Your task to perform on an android device: Open eBay Image 0: 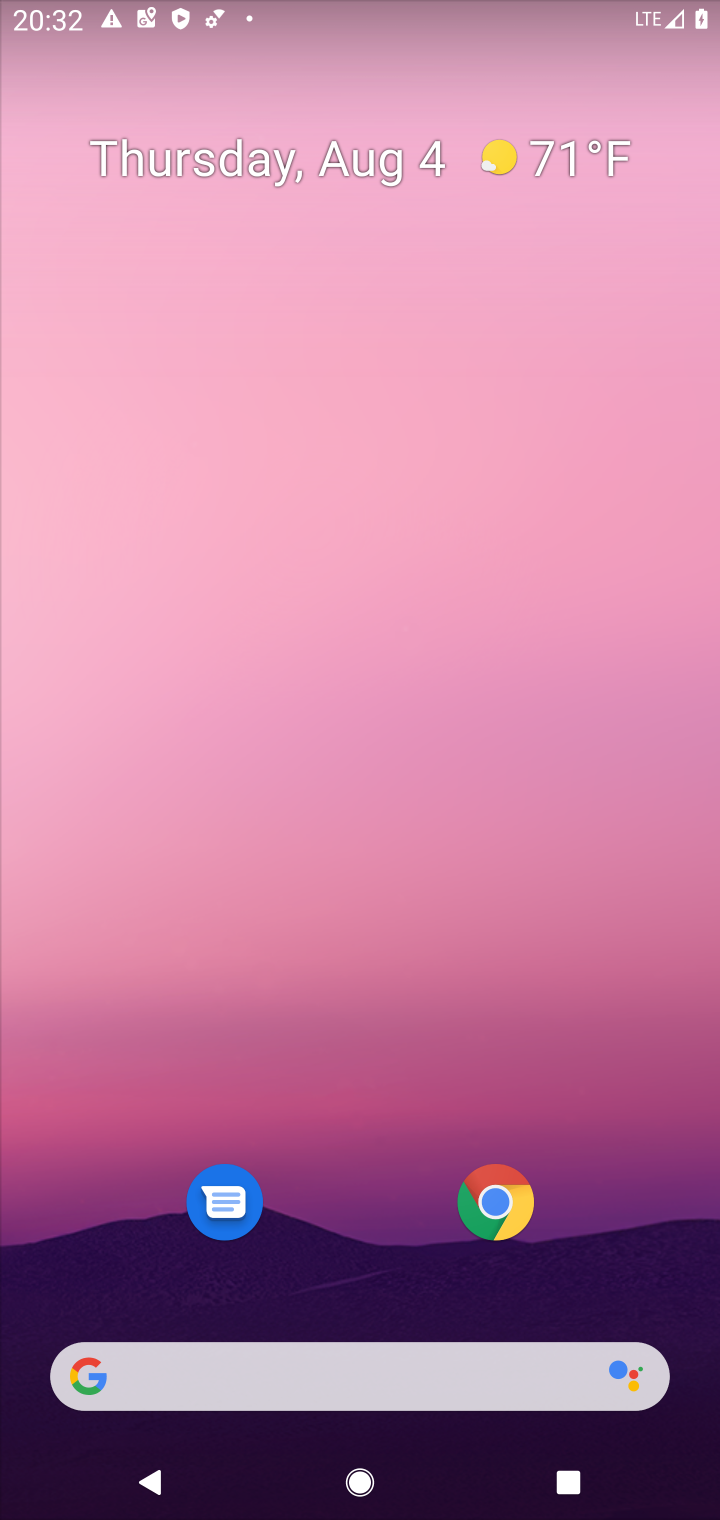
Step 0: click (537, 1199)
Your task to perform on an android device: Open eBay Image 1: 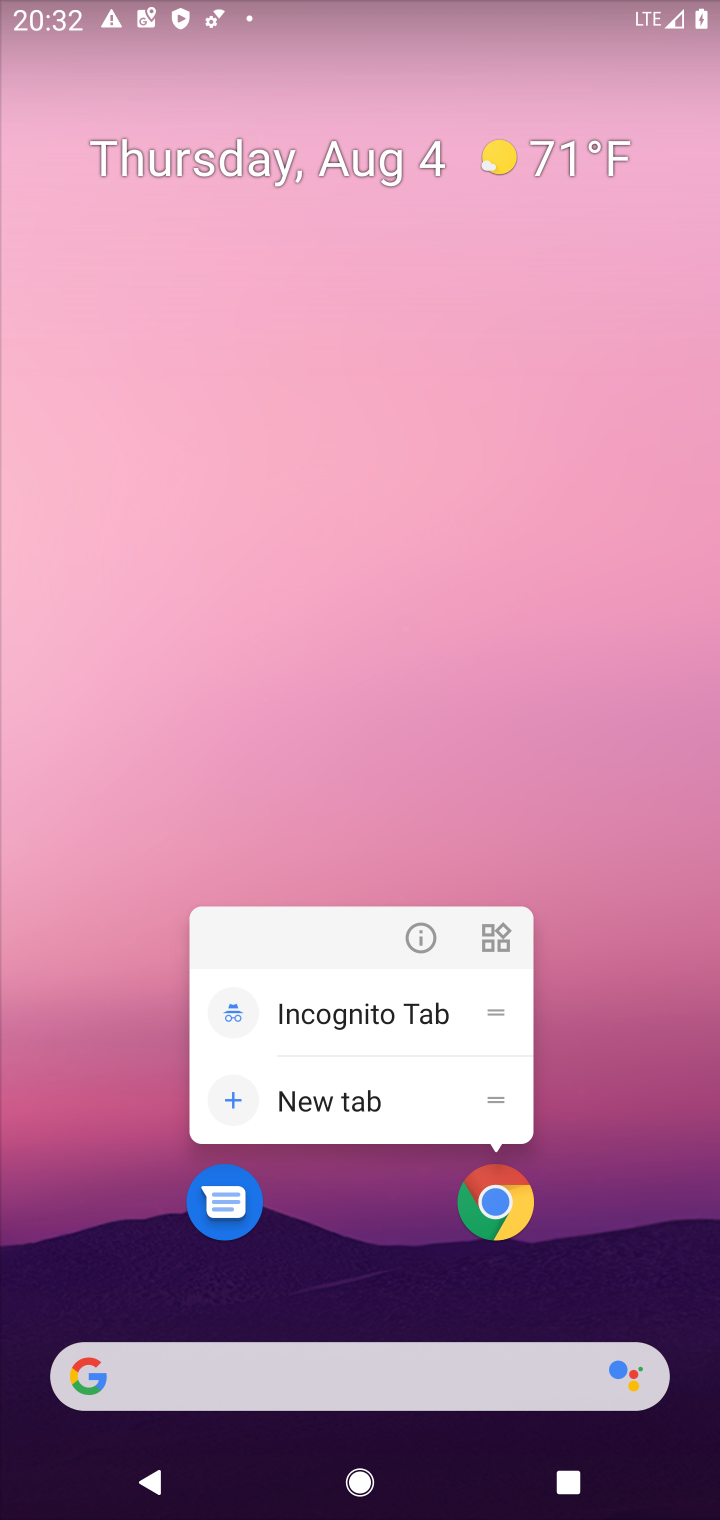
Step 1: click (494, 1227)
Your task to perform on an android device: Open eBay Image 2: 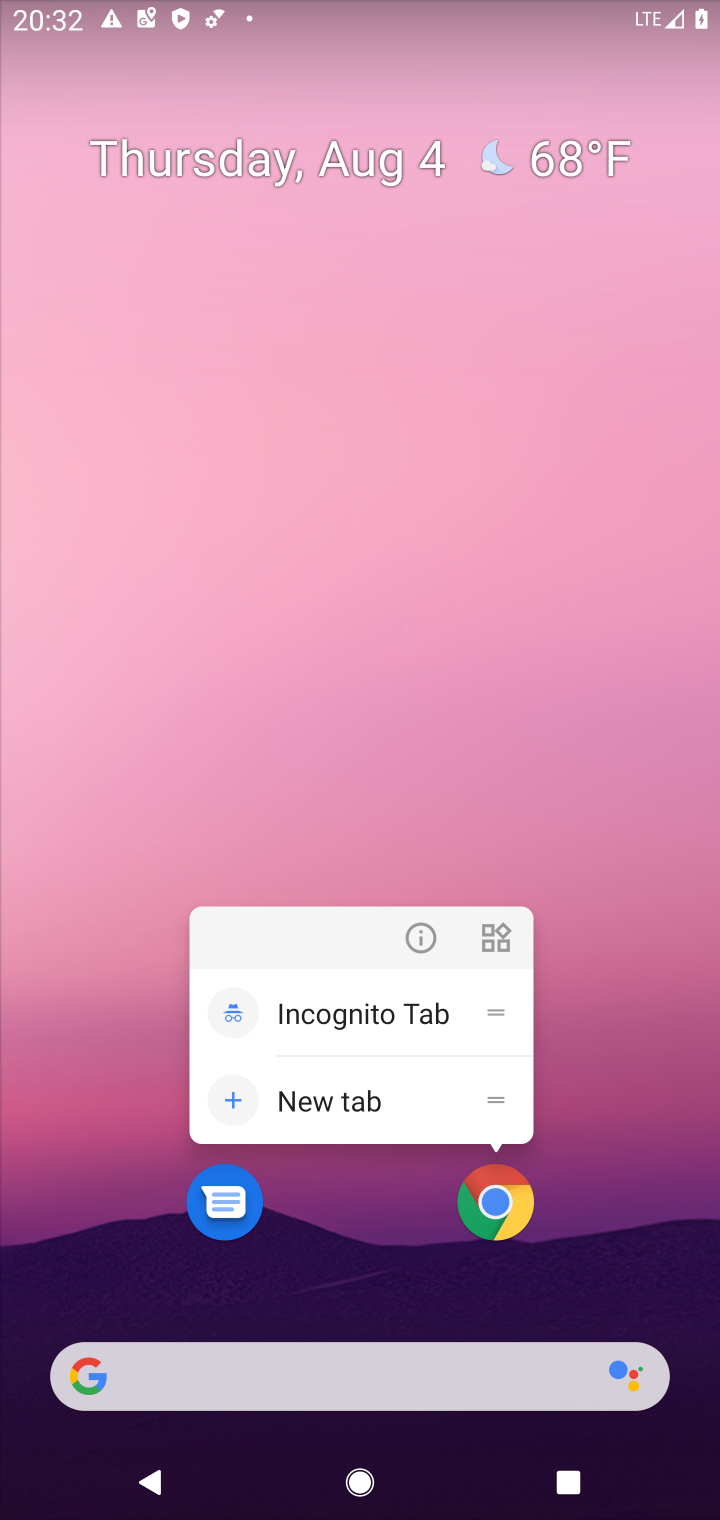
Step 2: click (494, 1227)
Your task to perform on an android device: Open eBay Image 3: 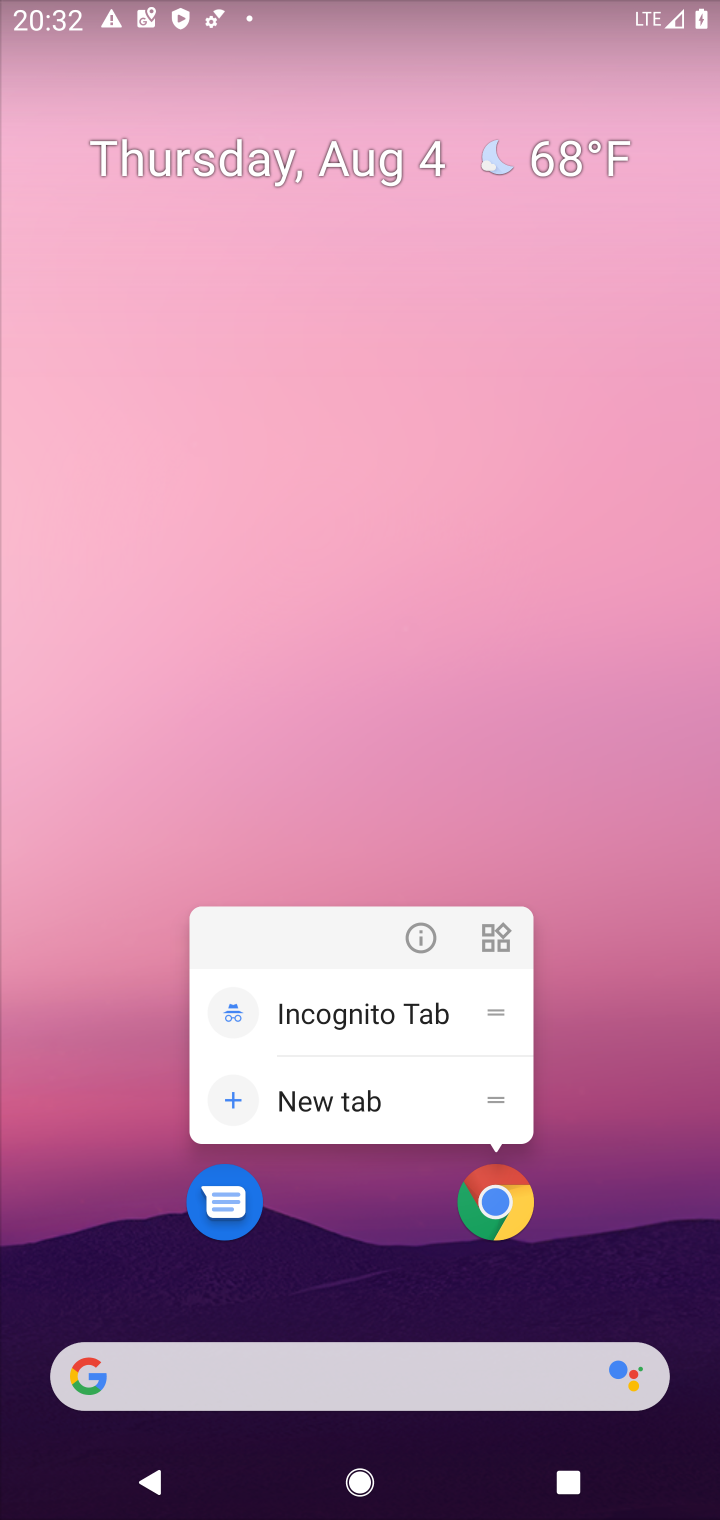
Step 3: click (497, 1221)
Your task to perform on an android device: Open eBay Image 4: 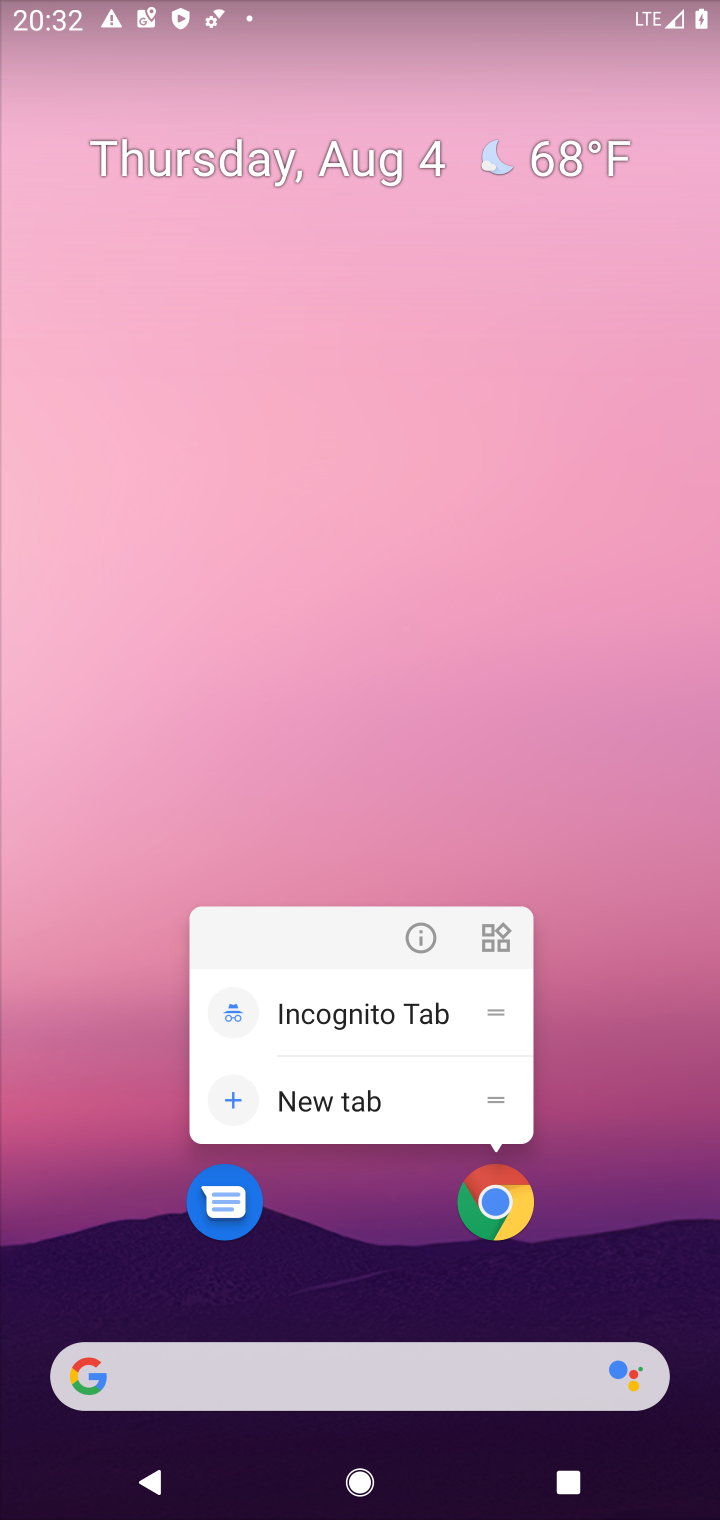
Step 4: click (497, 1221)
Your task to perform on an android device: Open eBay Image 5: 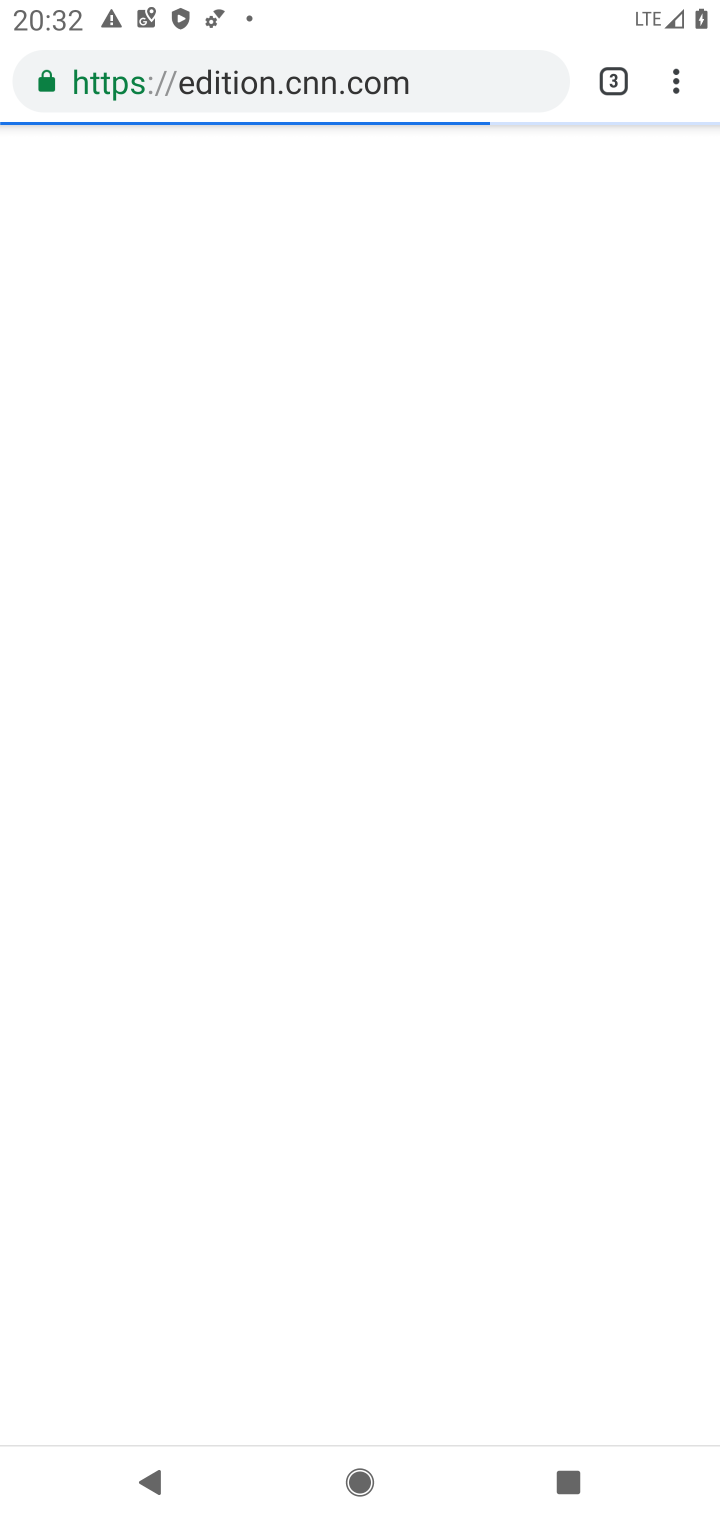
Step 5: click (616, 79)
Your task to perform on an android device: Open eBay Image 6: 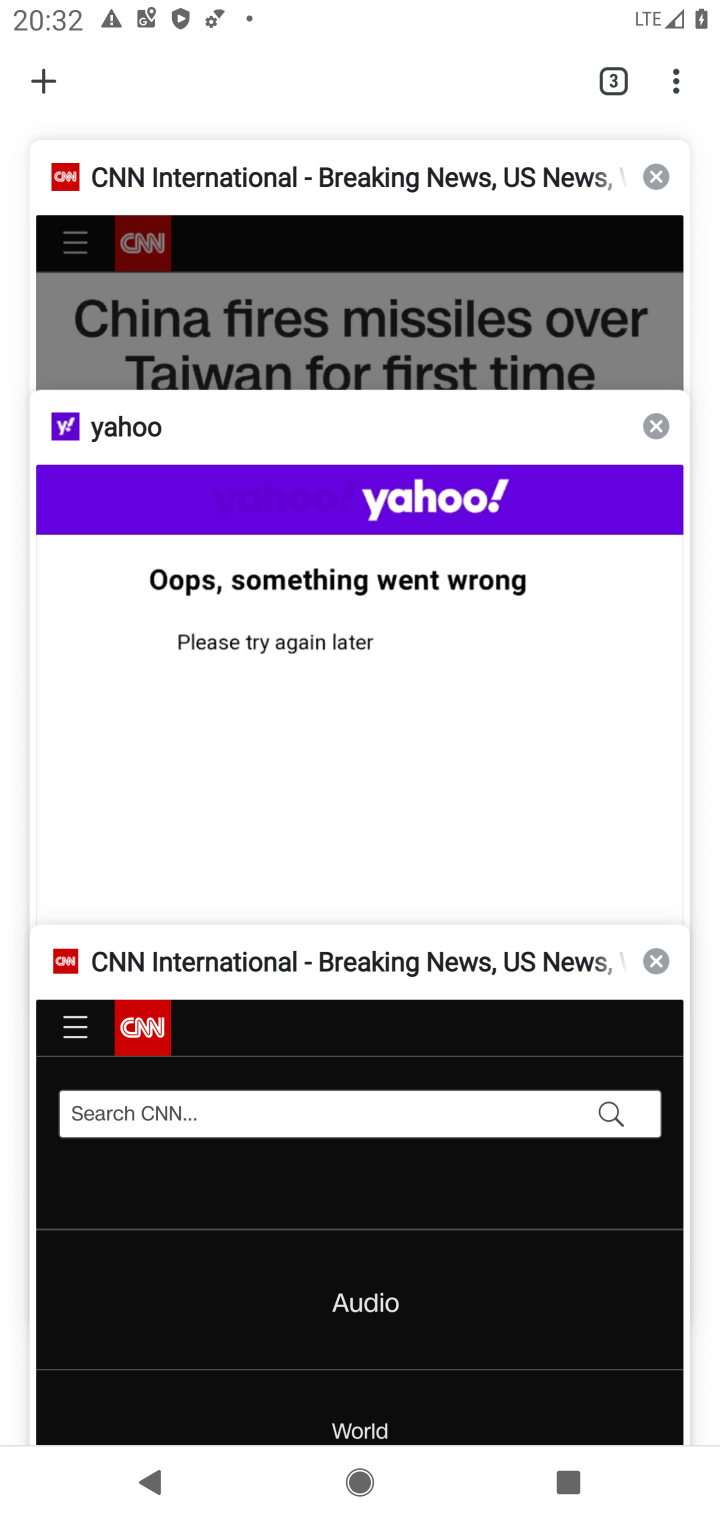
Step 6: click (47, 69)
Your task to perform on an android device: Open eBay Image 7: 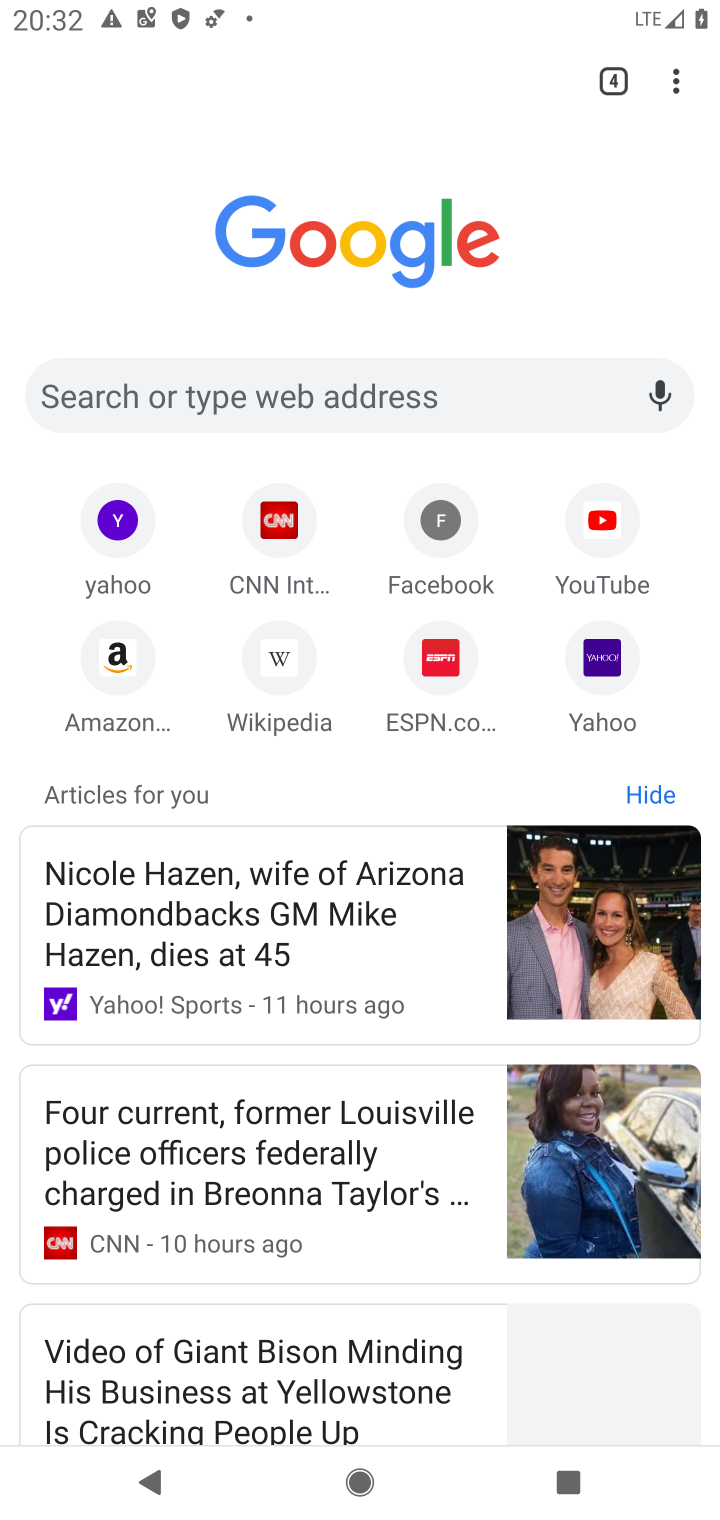
Step 7: click (202, 413)
Your task to perform on an android device: Open eBay Image 8: 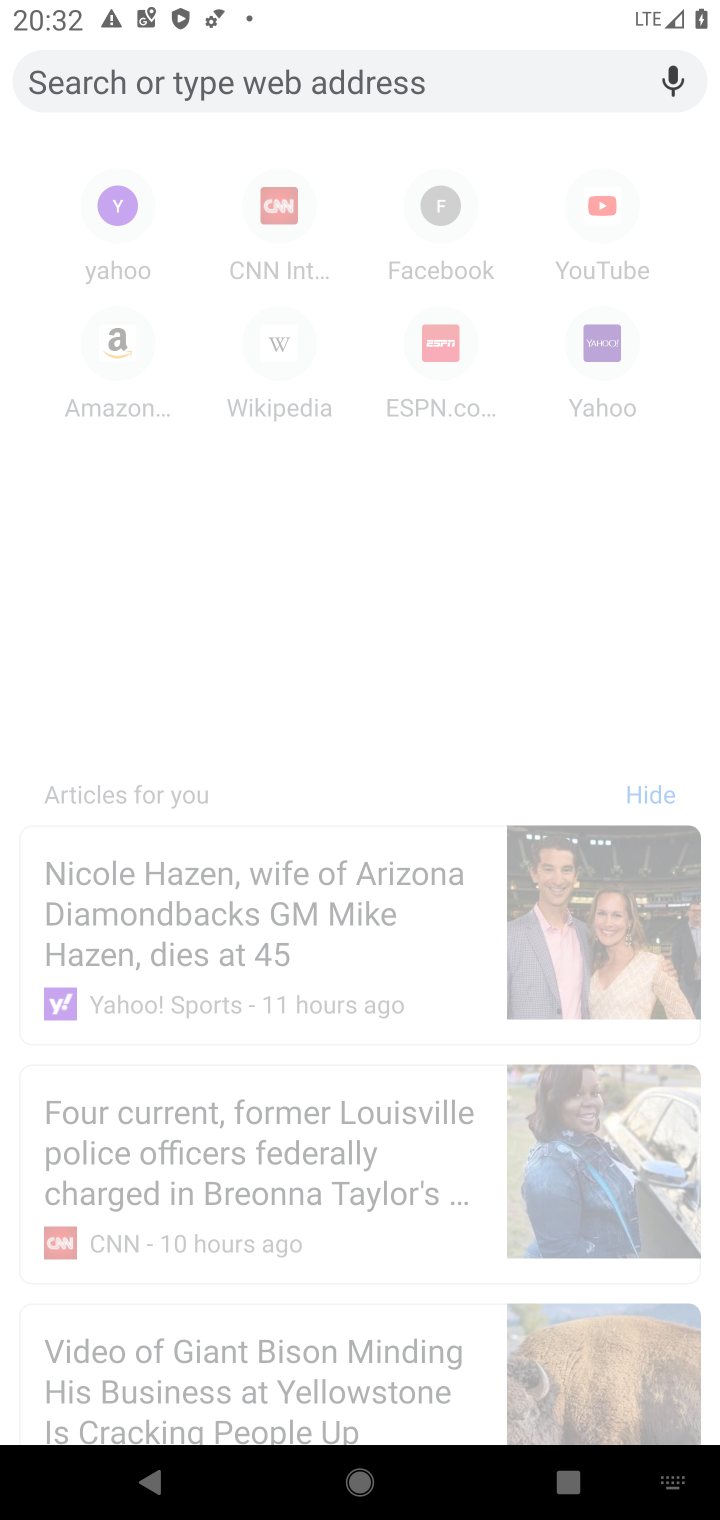
Step 8: type "eBay"
Your task to perform on an android device: Open eBay Image 9: 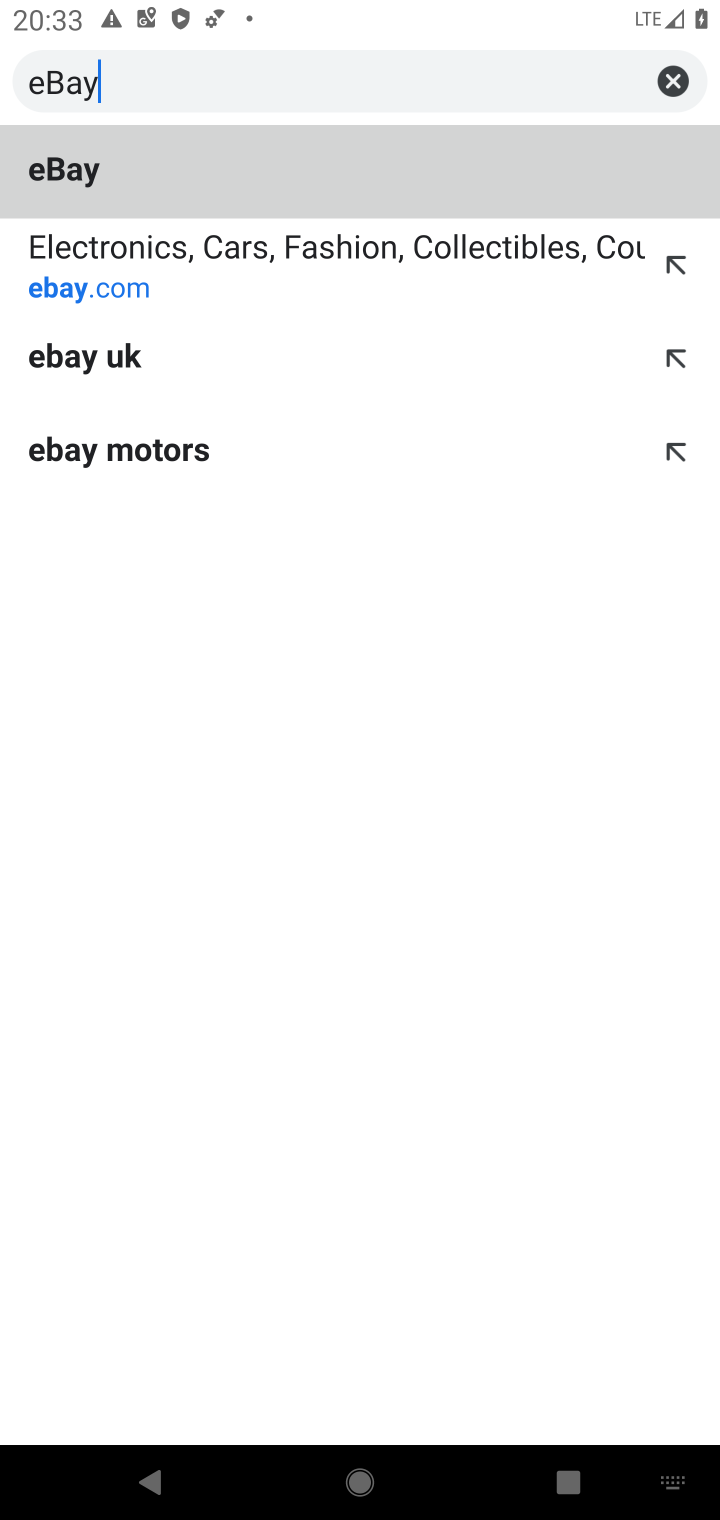
Step 9: click (256, 185)
Your task to perform on an android device: Open eBay Image 10: 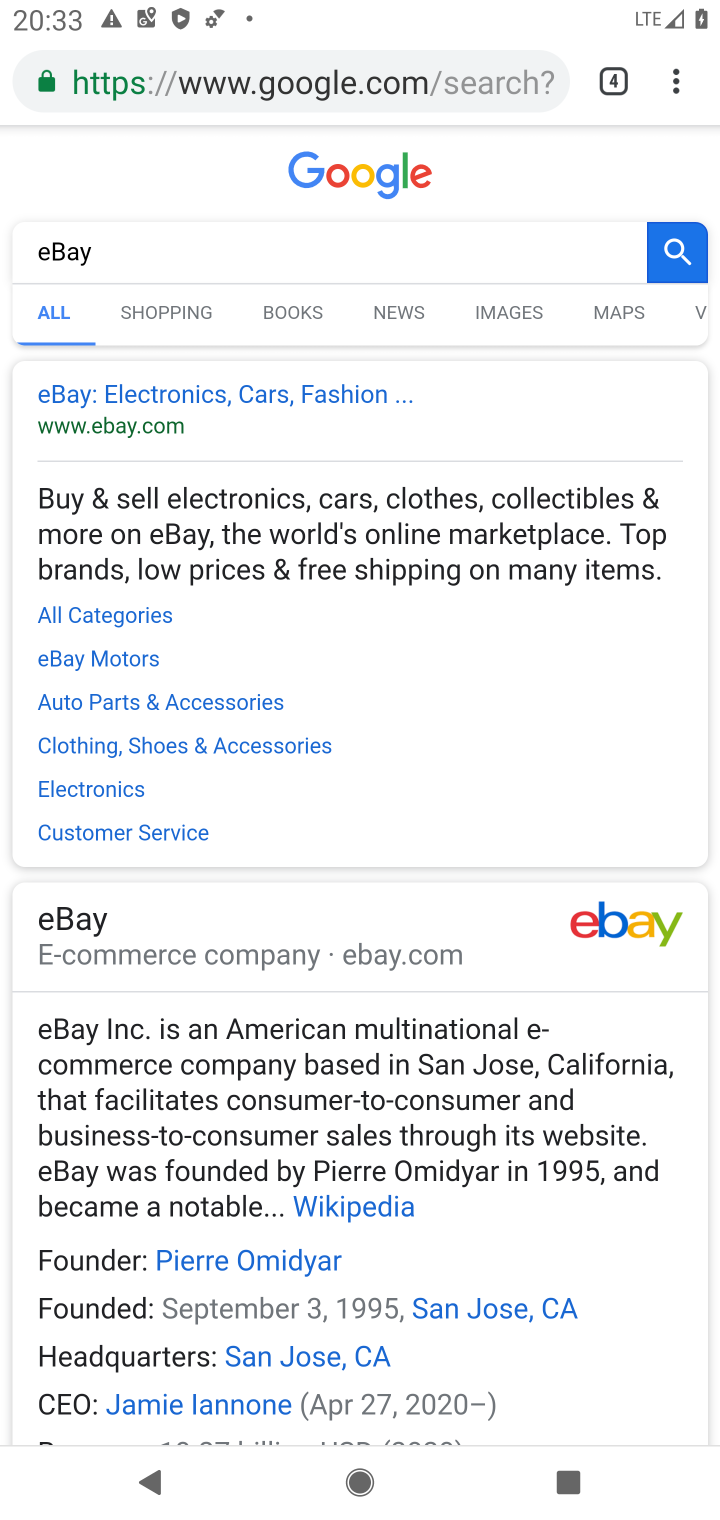
Step 10: click (220, 407)
Your task to perform on an android device: Open eBay Image 11: 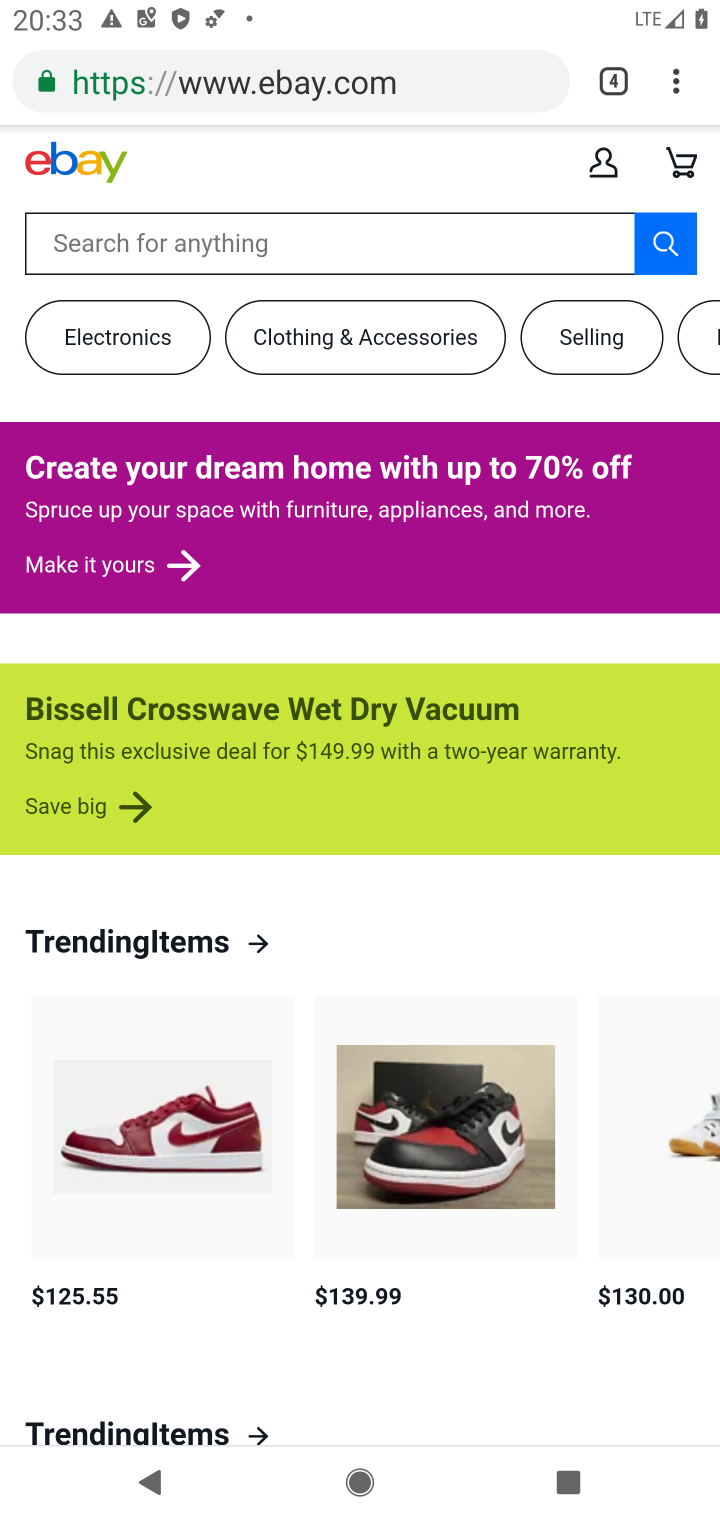
Step 11: task complete